Your task to perform on an android device: Show me the alarms in the clock app Image 0: 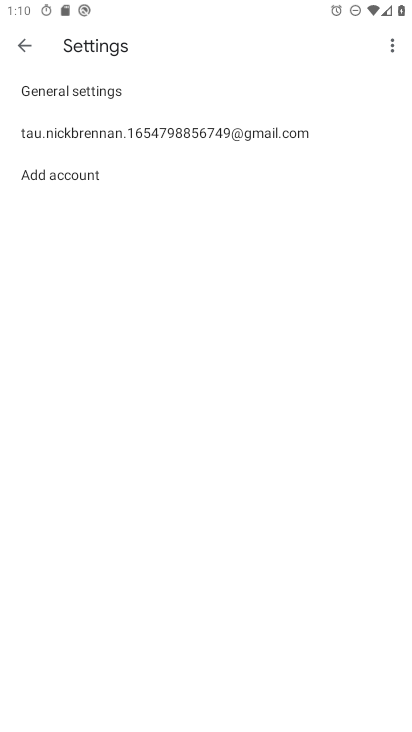
Step 0: press home button
Your task to perform on an android device: Show me the alarms in the clock app Image 1: 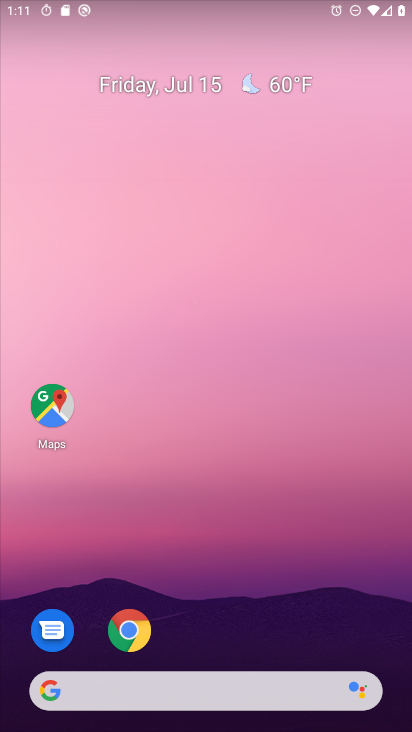
Step 1: drag from (197, 584) to (209, 42)
Your task to perform on an android device: Show me the alarms in the clock app Image 2: 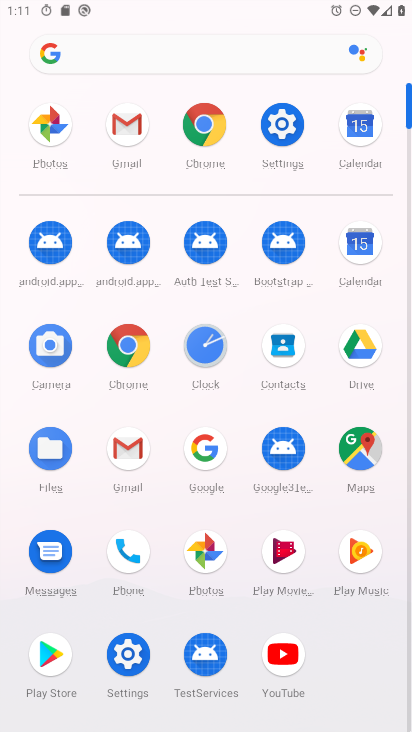
Step 2: click (202, 375)
Your task to perform on an android device: Show me the alarms in the clock app Image 3: 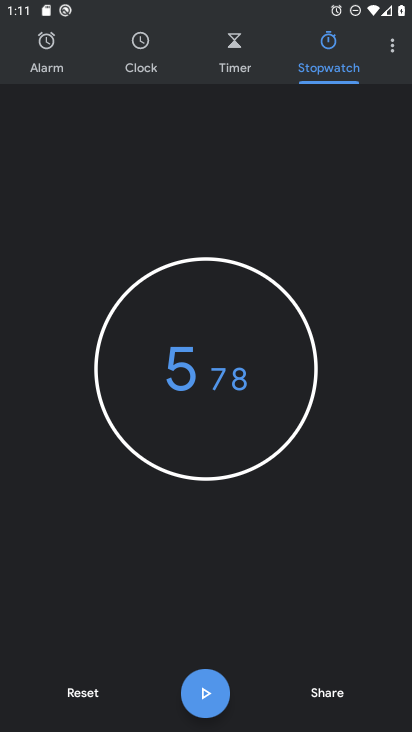
Step 3: click (33, 62)
Your task to perform on an android device: Show me the alarms in the clock app Image 4: 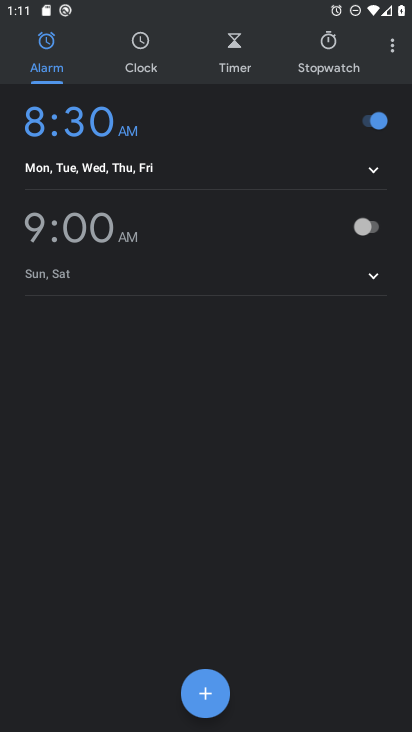
Step 4: task complete